Your task to perform on an android device: turn off notifications in google photos Image 0: 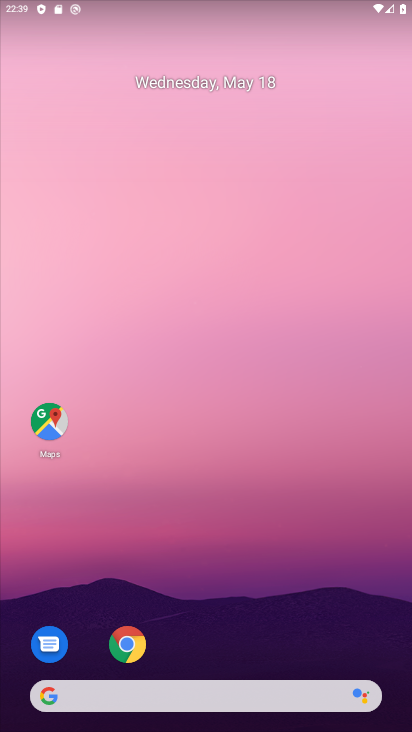
Step 0: drag from (324, 607) to (290, 186)
Your task to perform on an android device: turn off notifications in google photos Image 1: 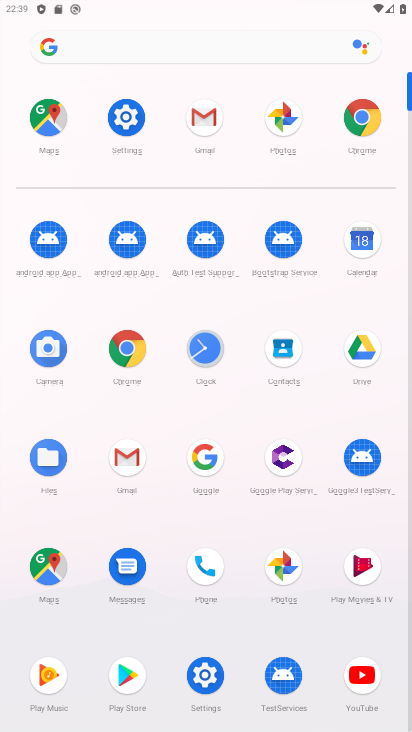
Step 1: click (277, 571)
Your task to perform on an android device: turn off notifications in google photos Image 2: 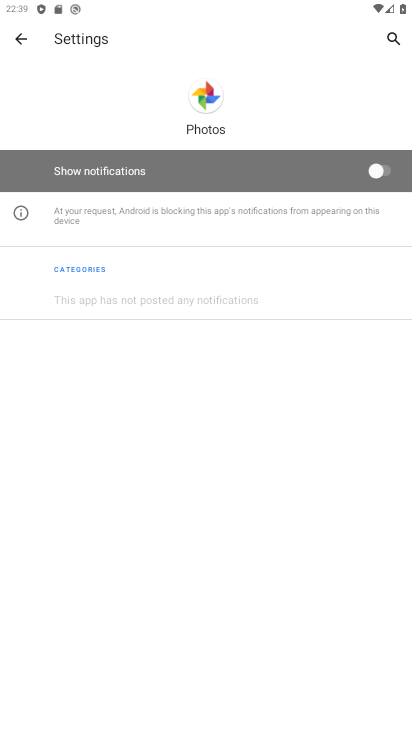
Step 2: click (34, 34)
Your task to perform on an android device: turn off notifications in google photos Image 3: 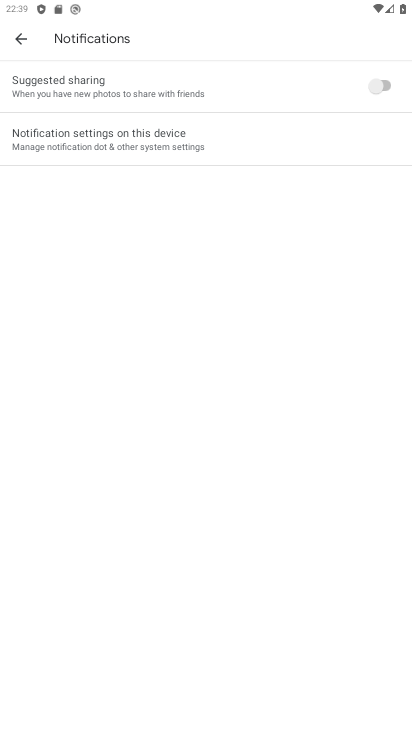
Step 3: click (17, 24)
Your task to perform on an android device: turn off notifications in google photos Image 4: 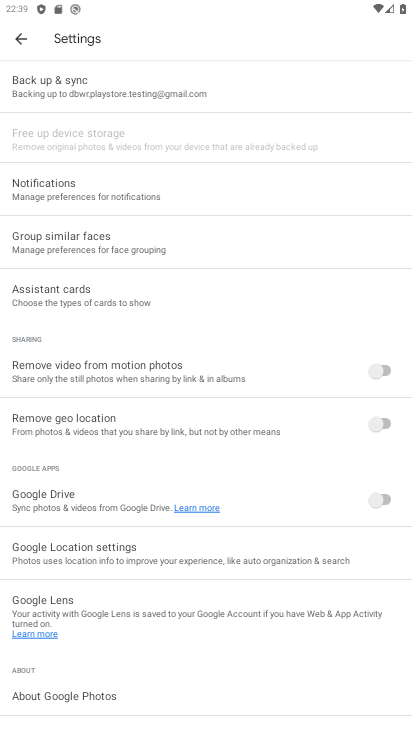
Step 4: click (87, 182)
Your task to perform on an android device: turn off notifications in google photos Image 5: 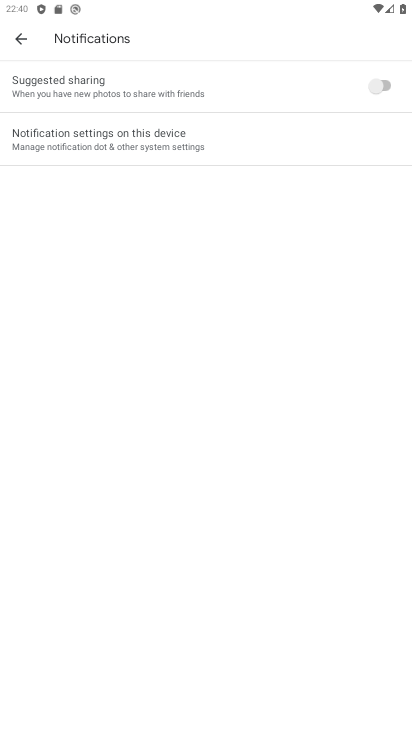
Step 5: click (117, 136)
Your task to perform on an android device: turn off notifications in google photos Image 6: 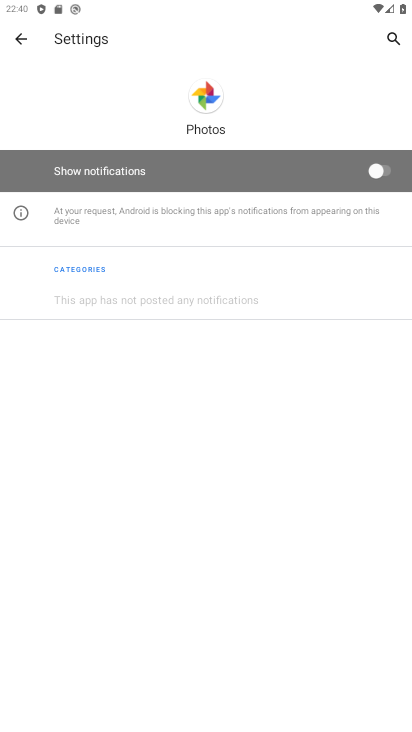
Step 6: task complete